Your task to perform on an android device: change the clock display to analog Image 0: 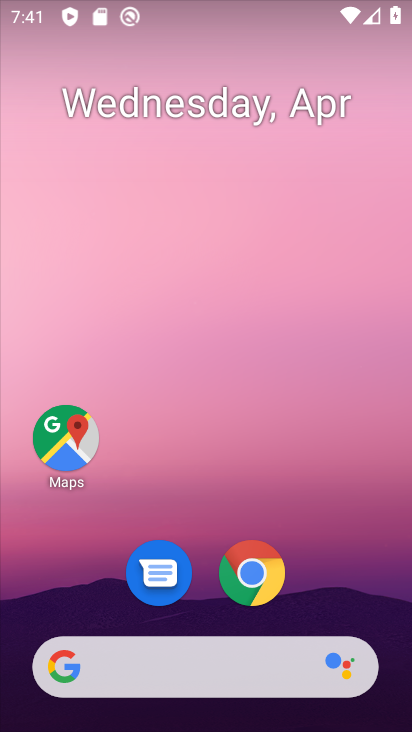
Step 0: drag from (65, 565) to (224, 217)
Your task to perform on an android device: change the clock display to analog Image 1: 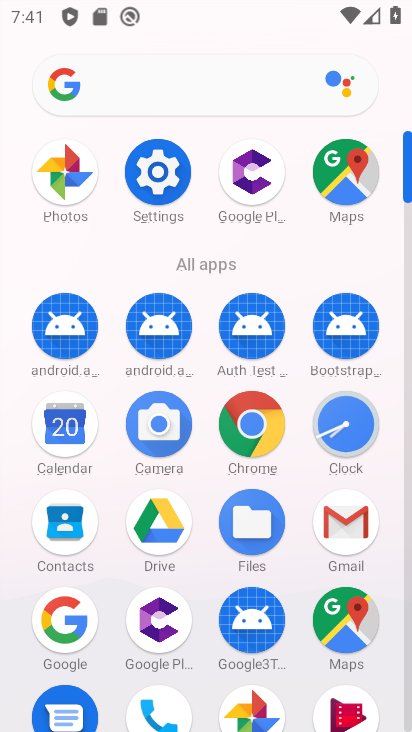
Step 1: click (342, 426)
Your task to perform on an android device: change the clock display to analog Image 2: 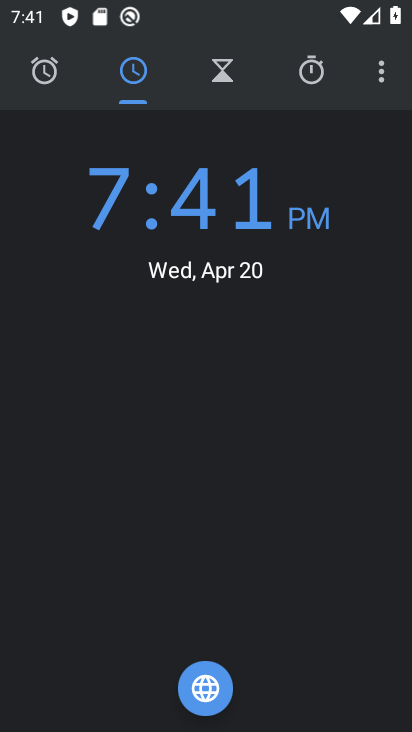
Step 2: click (381, 67)
Your task to perform on an android device: change the clock display to analog Image 3: 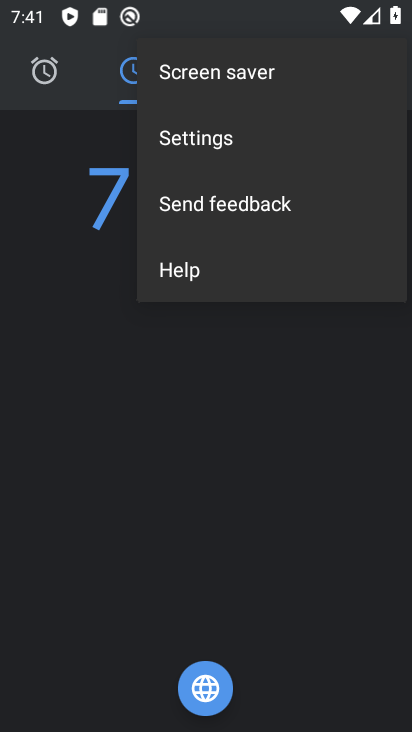
Step 3: click (213, 136)
Your task to perform on an android device: change the clock display to analog Image 4: 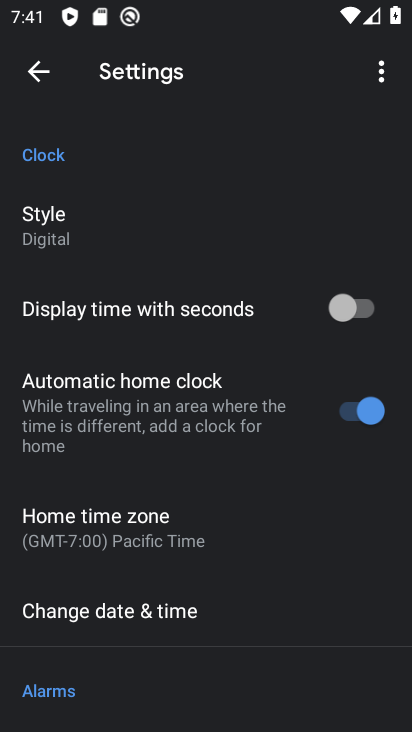
Step 4: click (65, 216)
Your task to perform on an android device: change the clock display to analog Image 5: 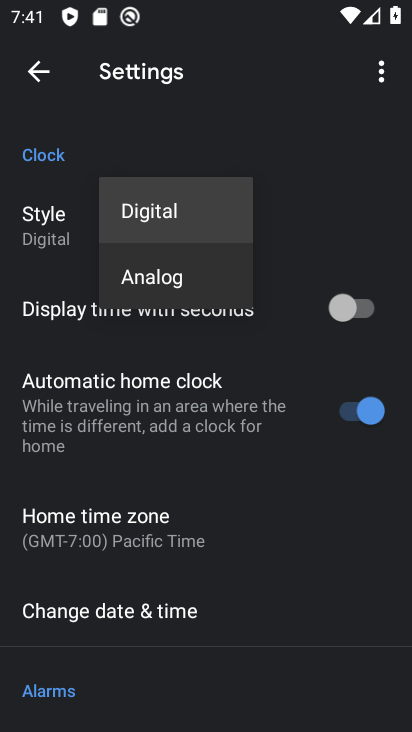
Step 5: click (133, 266)
Your task to perform on an android device: change the clock display to analog Image 6: 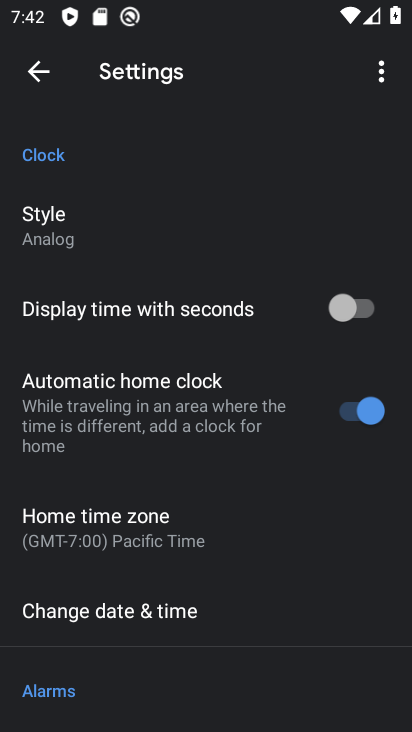
Step 6: task complete